Your task to perform on an android device: change the clock display to show seconds Image 0: 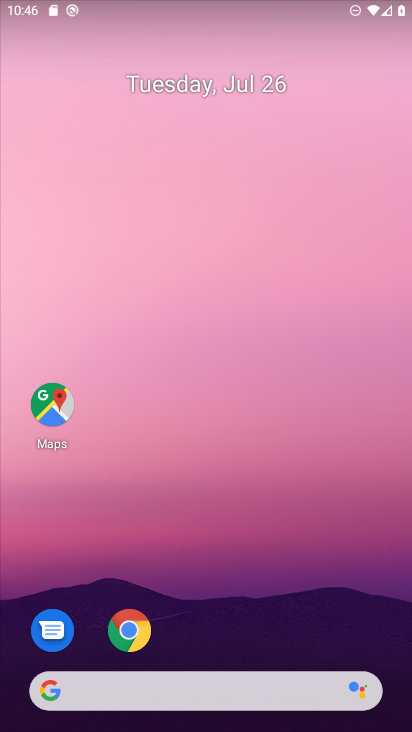
Step 0: drag from (378, 637) to (298, 145)
Your task to perform on an android device: change the clock display to show seconds Image 1: 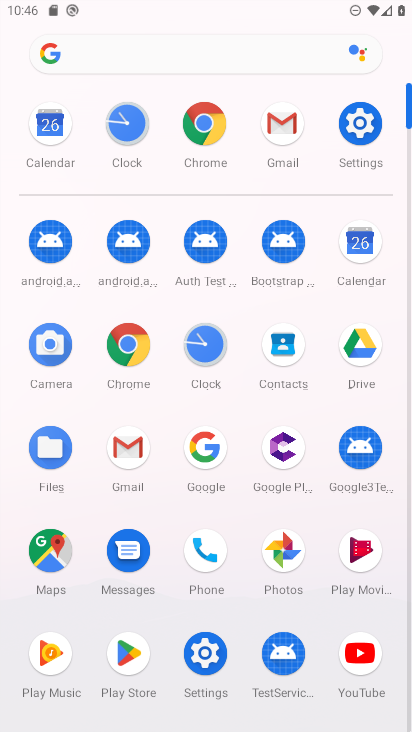
Step 1: click (205, 346)
Your task to perform on an android device: change the clock display to show seconds Image 2: 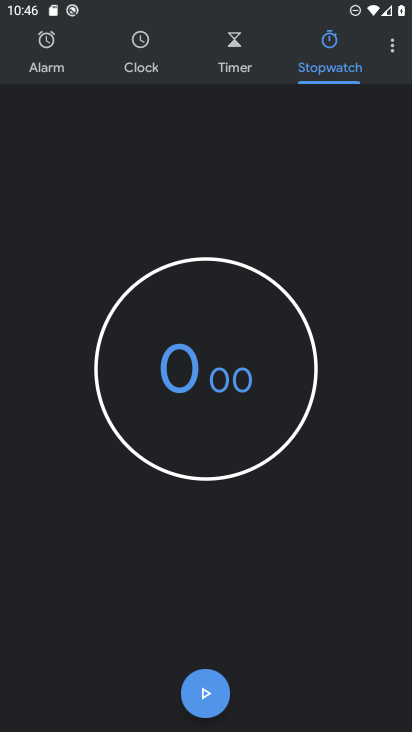
Step 2: click (391, 52)
Your task to perform on an android device: change the clock display to show seconds Image 3: 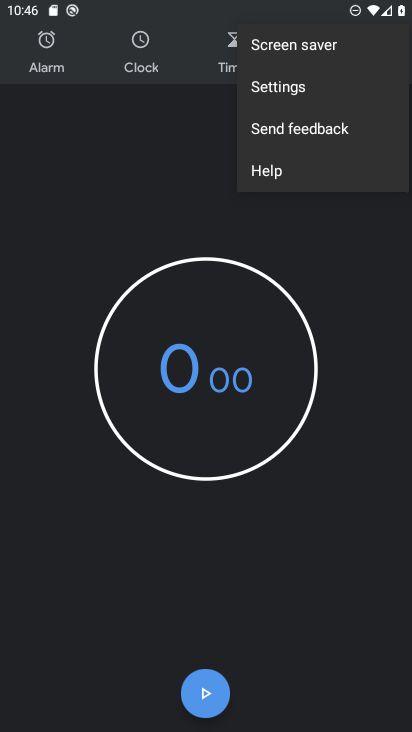
Step 3: click (272, 88)
Your task to perform on an android device: change the clock display to show seconds Image 4: 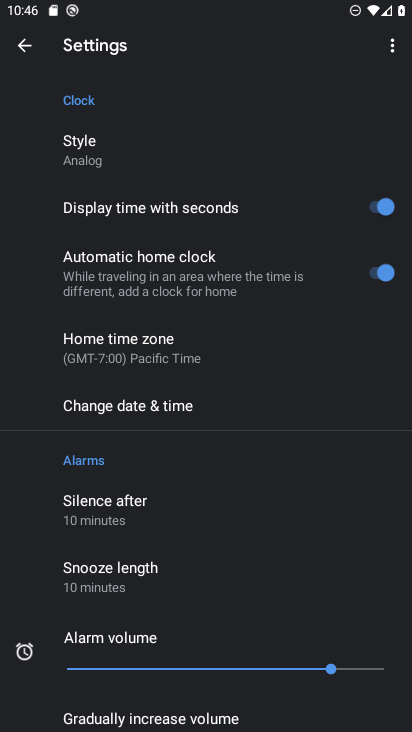
Step 4: task complete